Your task to perform on an android device: Open network settings Image 0: 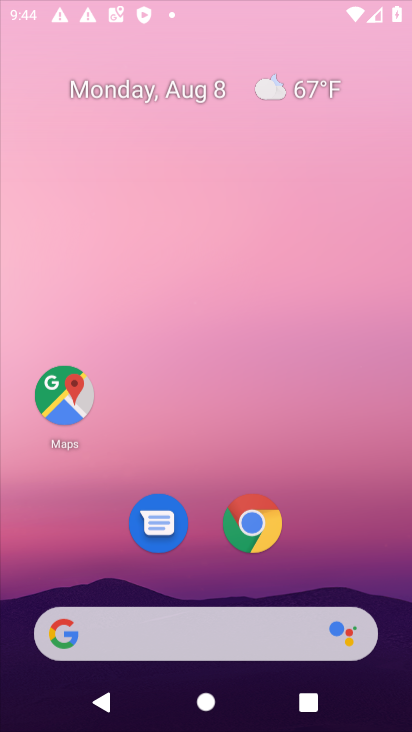
Step 0: drag from (392, 715) to (340, 105)
Your task to perform on an android device: Open network settings Image 1: 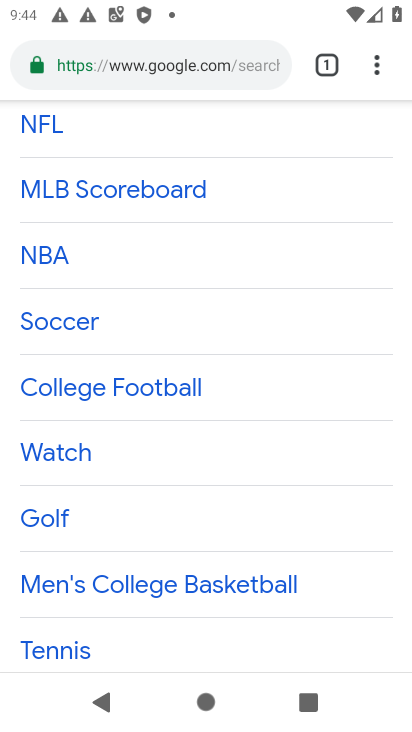
Step 1: press back button
Your task to perform on an android device: Open network settings Image 2: 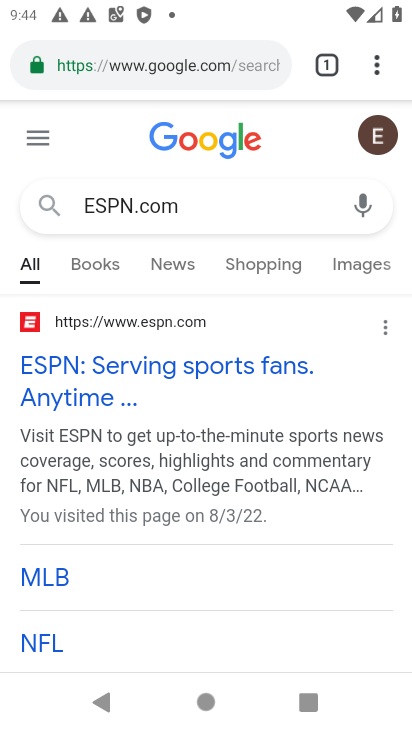
Step 2: press home button
Your task to perform on an android device: Open network settings Image 3: 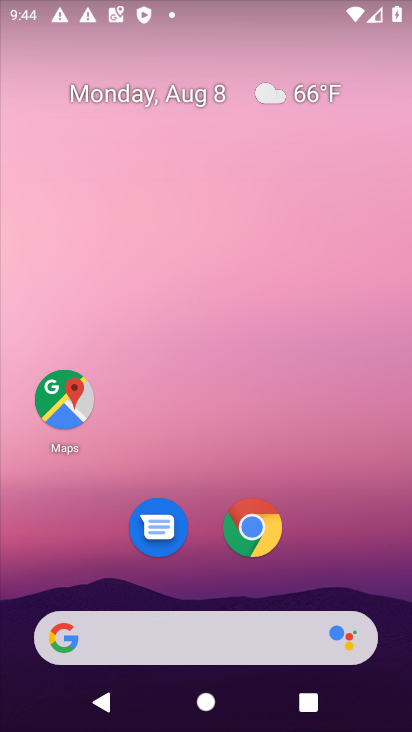
Step 3: drag from (390, 692) to (338, 61)
Your task to perform on an android device: Open network settings Image 4: 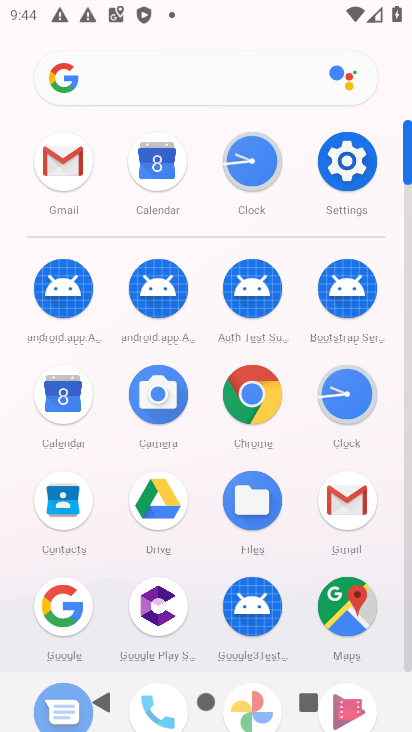
Step 4: click (352, 166)
Your task to perform on an android device: Open network settings Image 5: 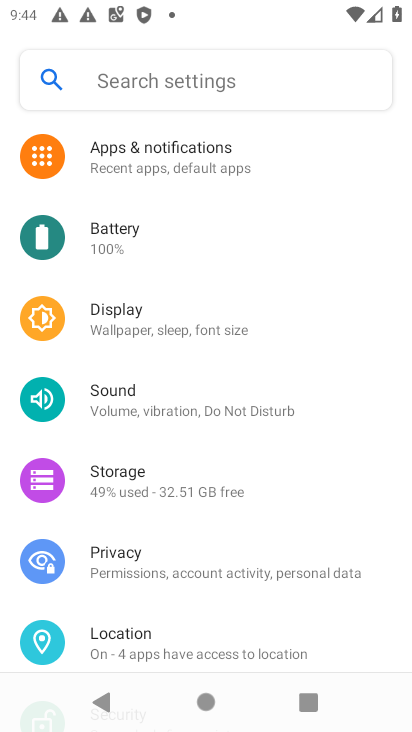
Step 5: click (177, 147)
Your task to perform on an android device: Open network settings Image 6: 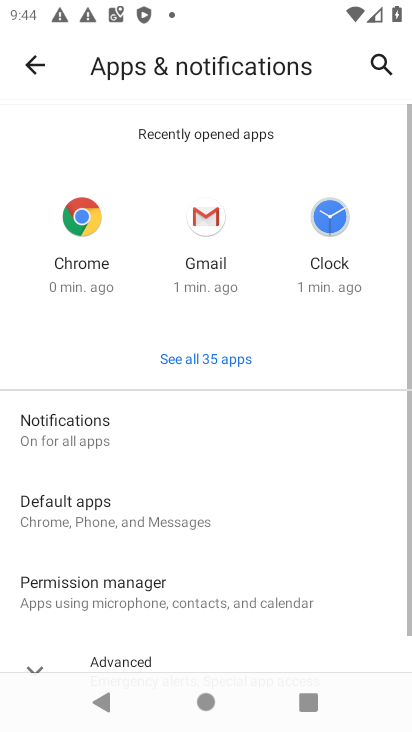
Step 6: press back button
Your task to perform on an android device: Open network settings Image 7: 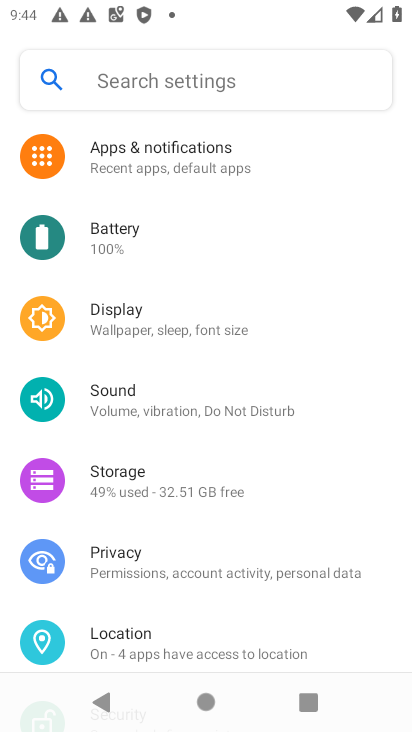
Step 7: drag from (325, 200) to (319, 562)
Your task to perform on an android device: Open network settings Image 8: 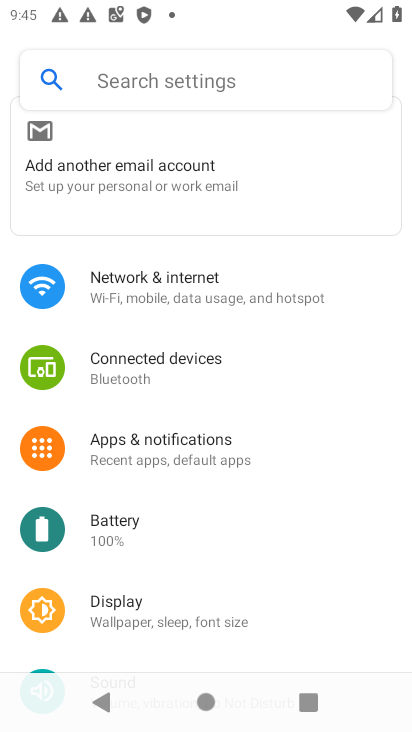
Step 8: click (141, 282)
Your task to perform on an android device: Open network settings Image 9: 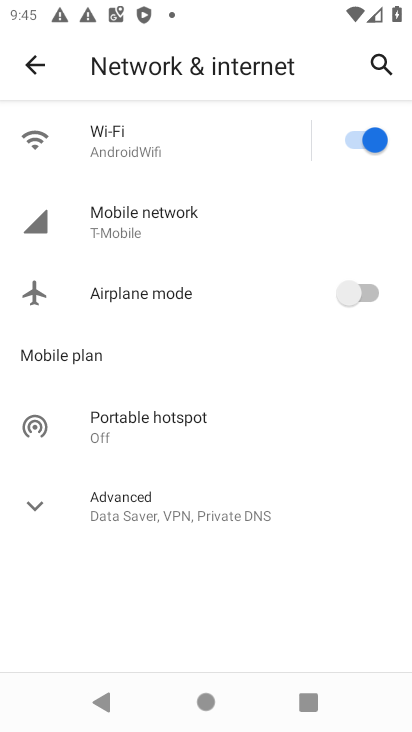
Step 9: click (142, 219)
Your task to perform on an android device: Open network settings Image 10: 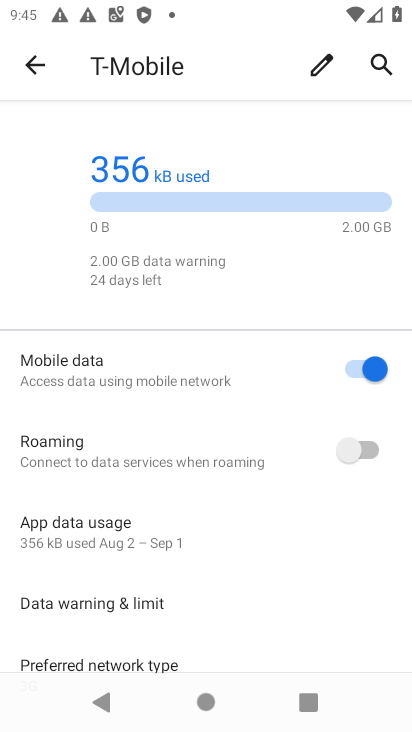
Step 10: drag from (281, 628) to (292, 213)
Your task to perform on an android device: Open network settings Image 11: 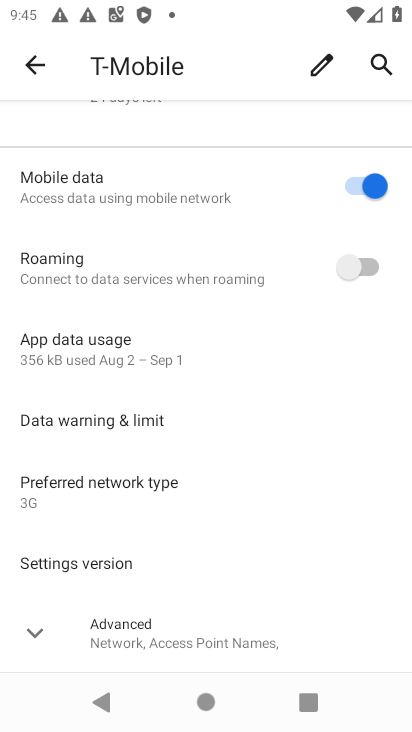
Step 11: click (42, 625)
Your task to perform on an android device: Open network settings Image 12: 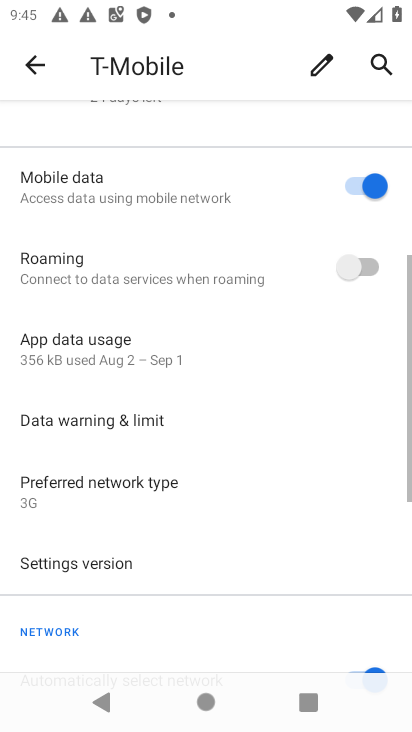
Step 12: task complete